Your task to perform on an android device: Open Maps and search for coffee Image 0: 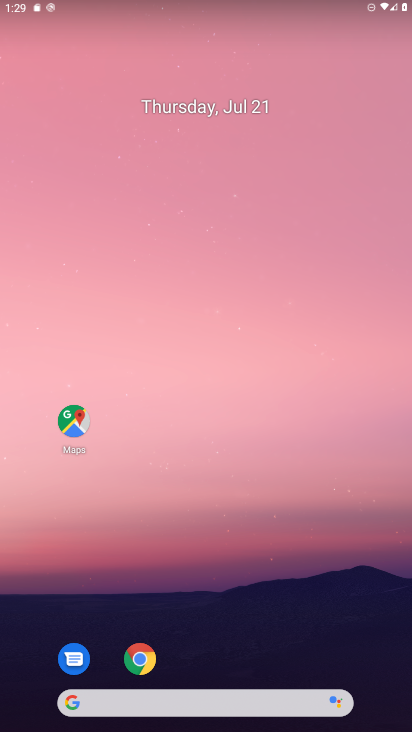
Step 0: click (72, 406)
Your task to perform on an android device: Open Maps and search for coffee Image 1: 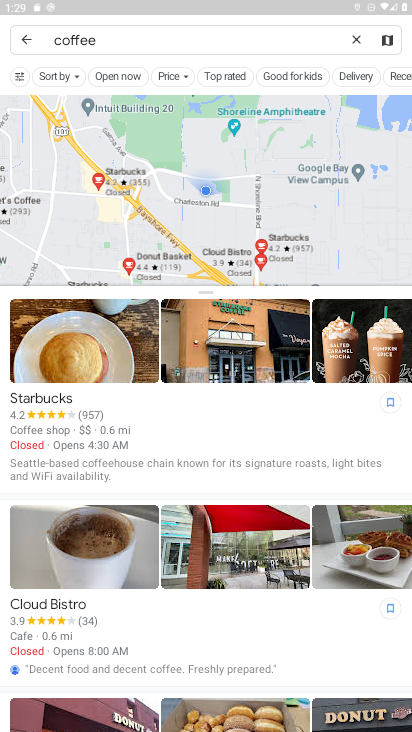
Step 1: task complete